Your task to perform on an android device: turn off javascript in the chrome app Image 0: 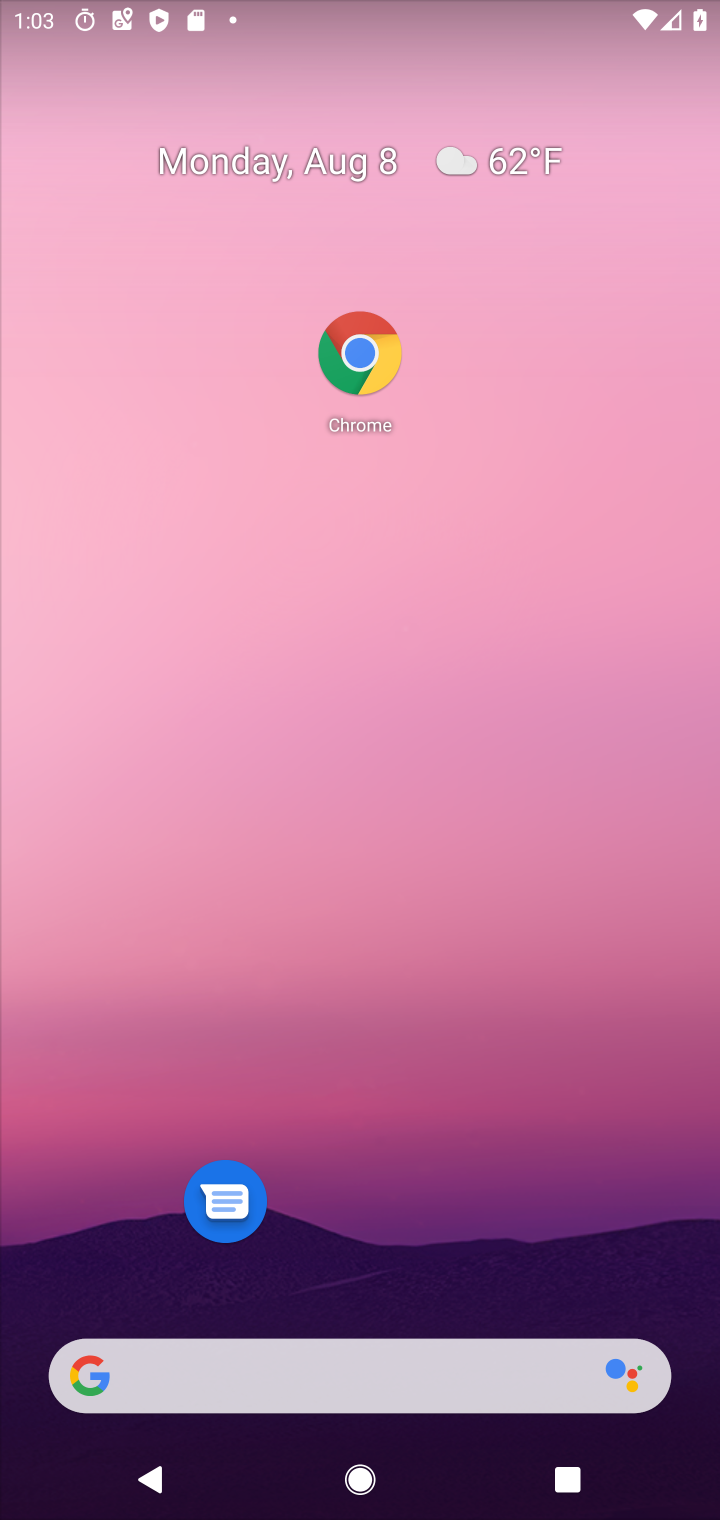
Step 0: press home button
Your task to perform on an android device: turn off javascript in the chrome app Image 1: 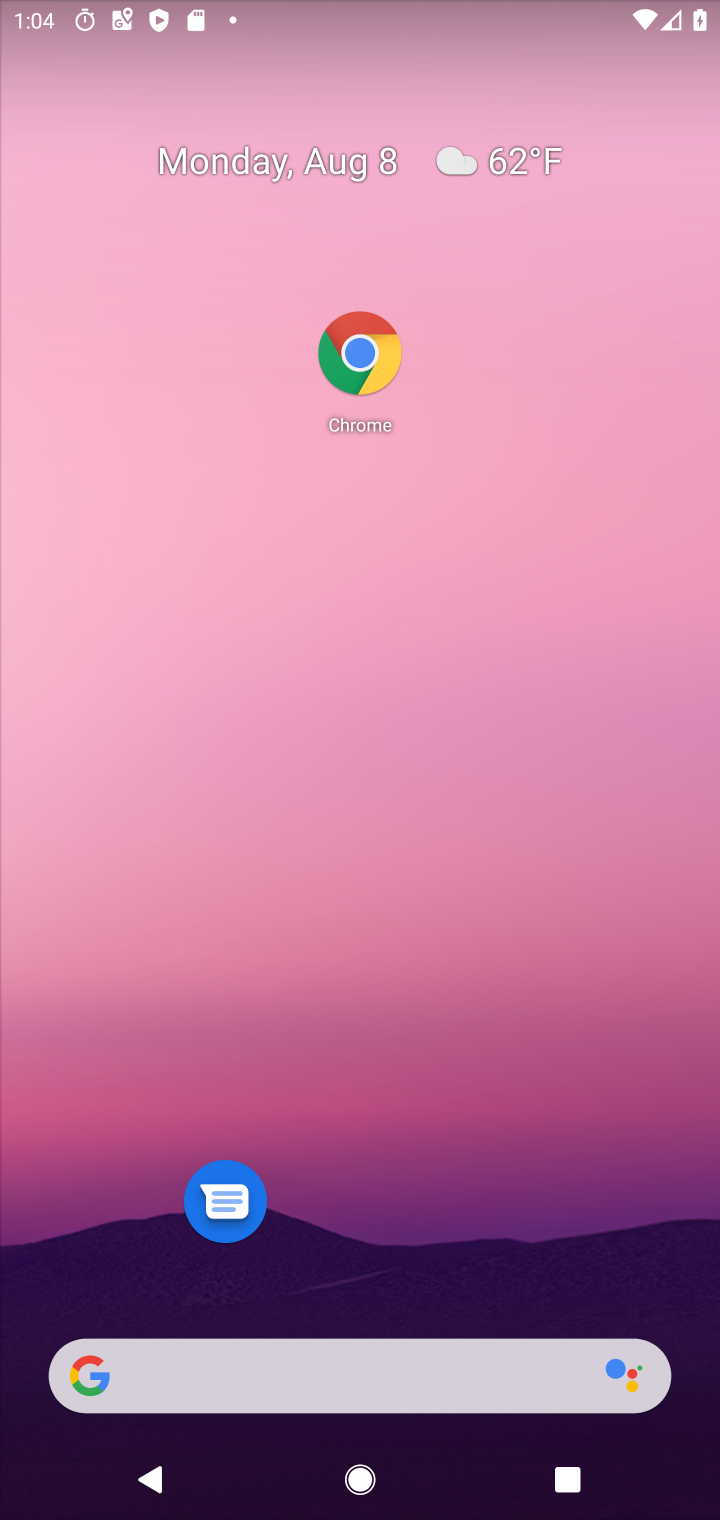
Step 1: click (368, 359)
Your task to perform on an android device: turn off javascript in the chrome app Image 2: 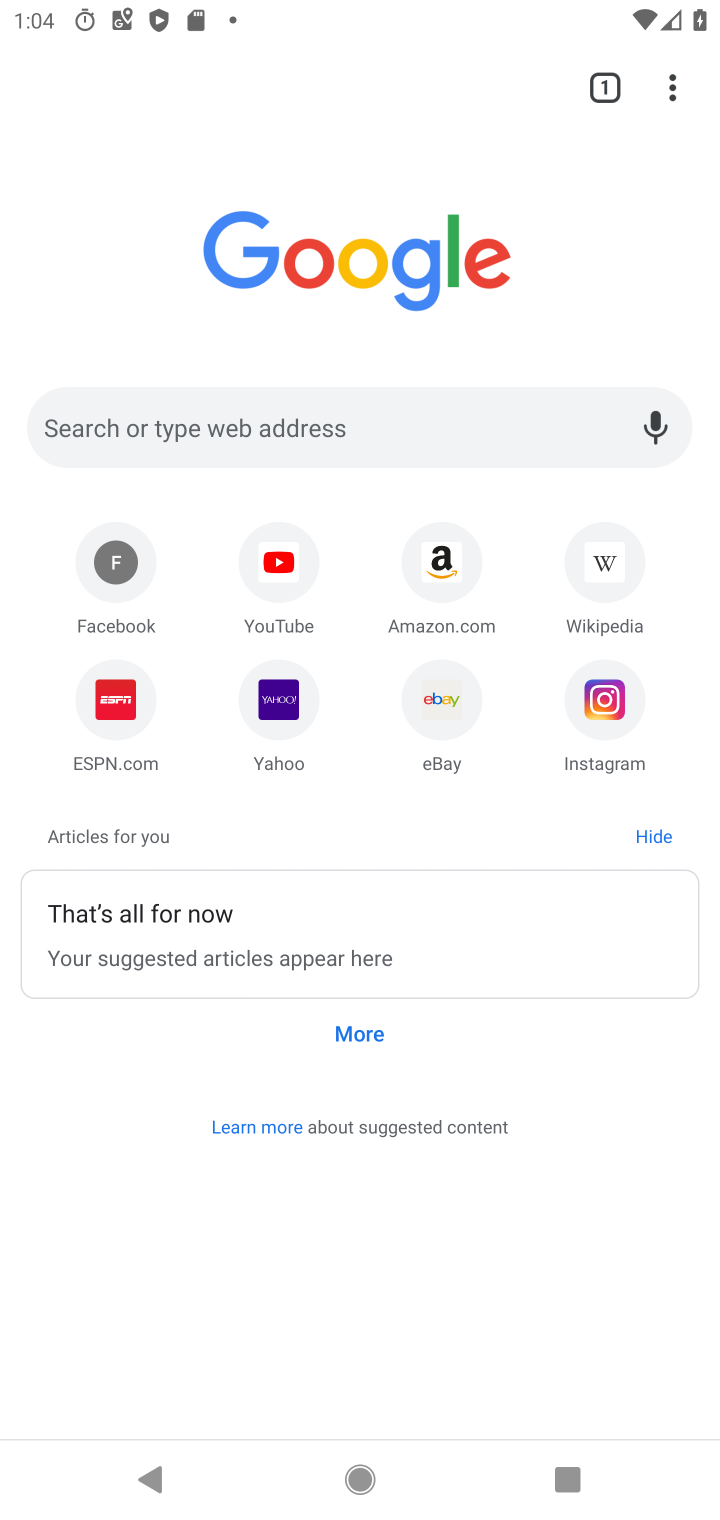
Step 2: click (660, 93)
Your task to perform on an android device: turn off javascript in the chrome app Image 3: 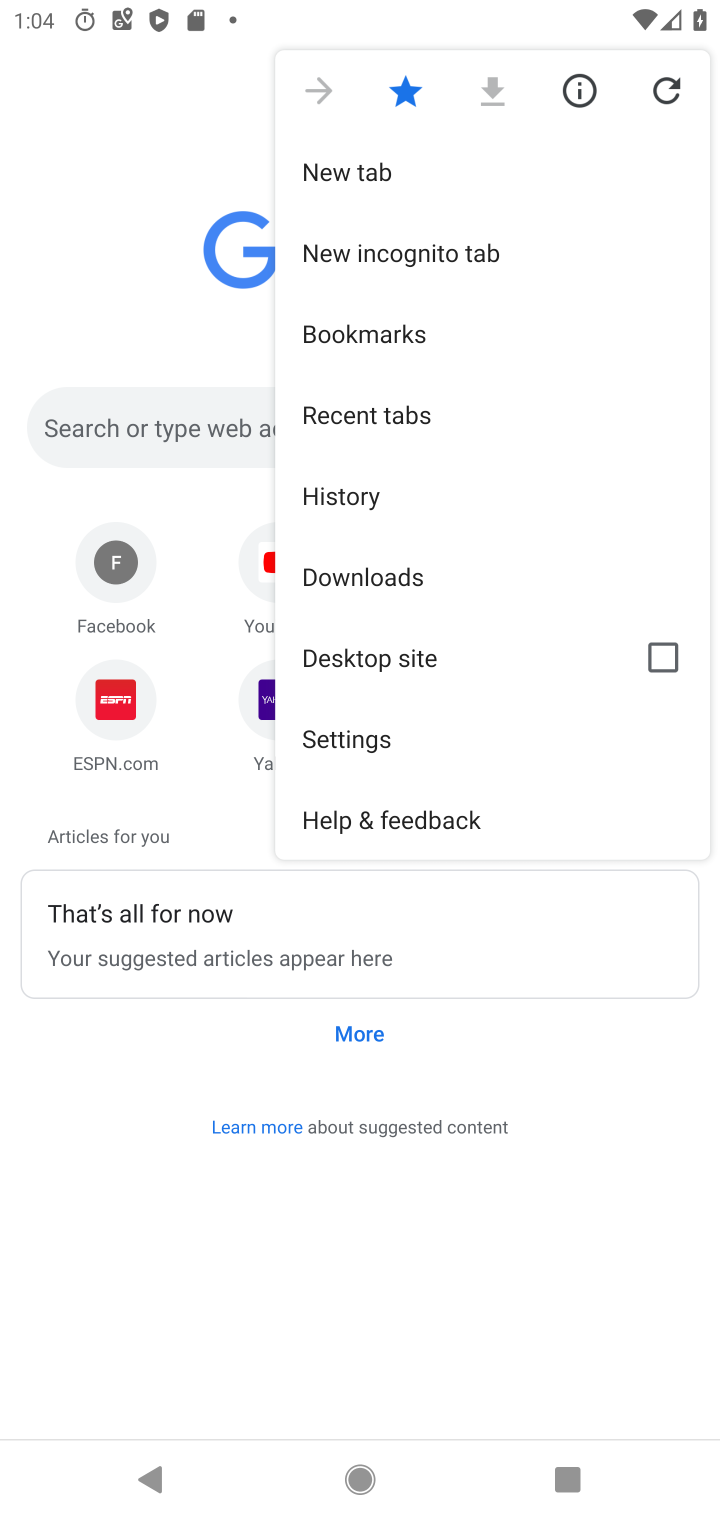
Step 3: click (360, 726)
Your task to perform on an android device: turn off javascript in the chrome app Image 4: 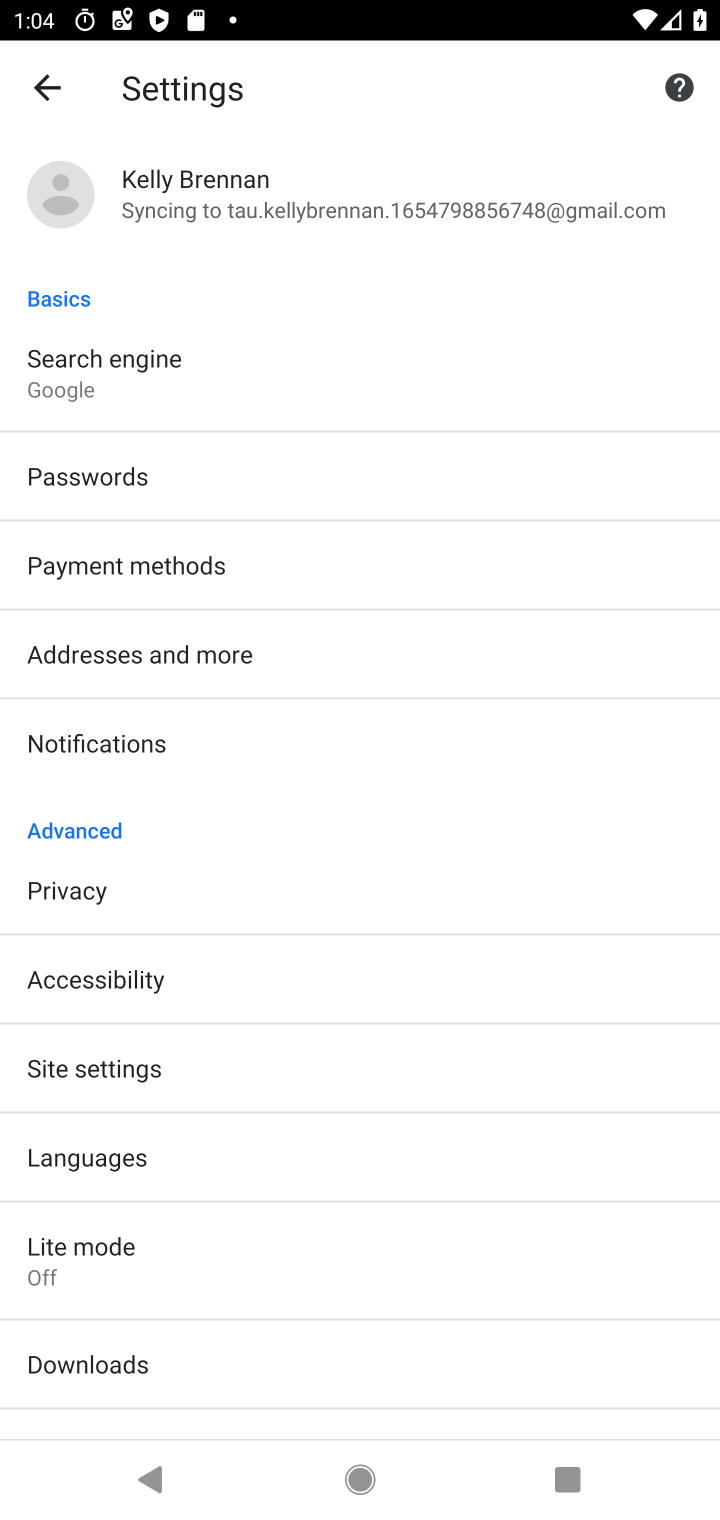
Step 4: click (131, 1067)
Your task to perform on an android device: turn off javascript in the chrome app Image 5: 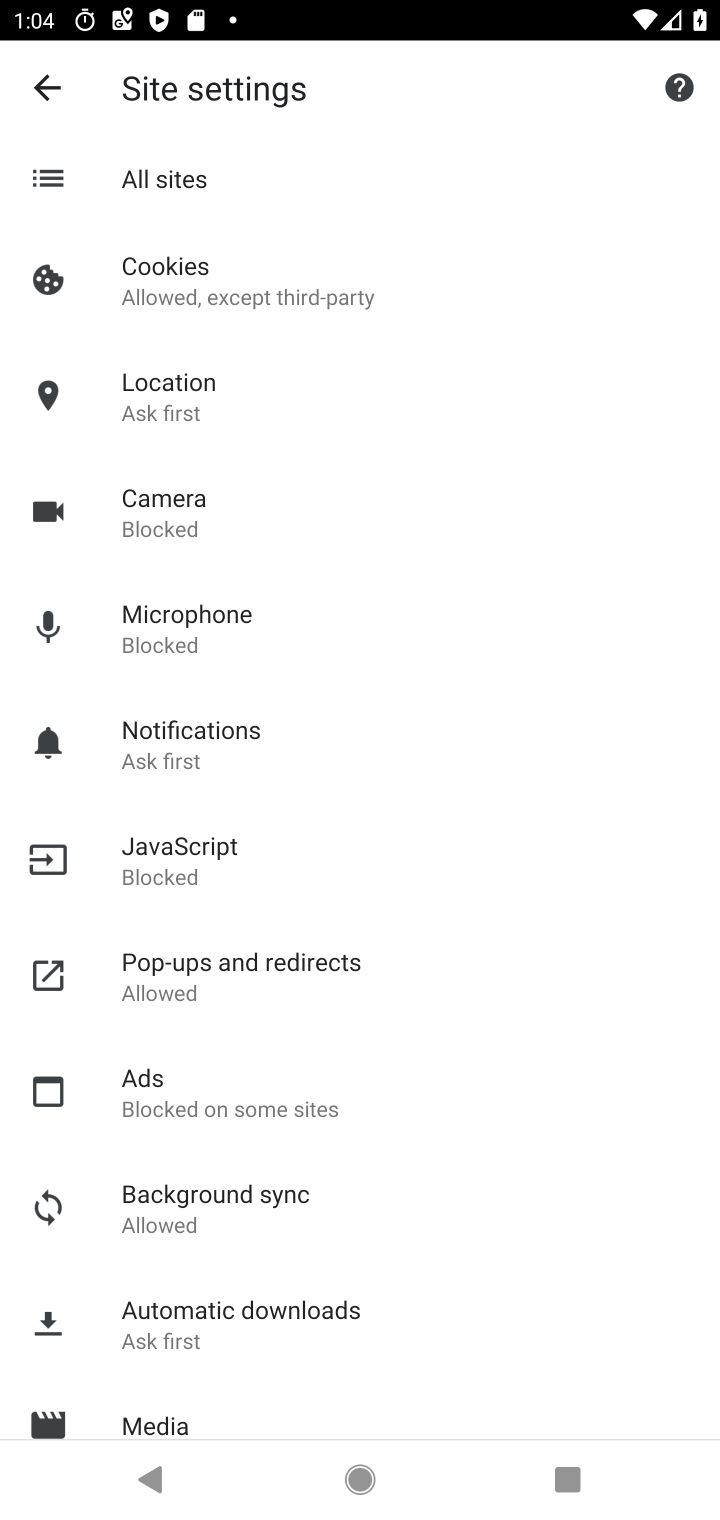
Step 5: click (174, 851)
Your task to perform on an android device: turn off javascript in the chrome app Image 6: 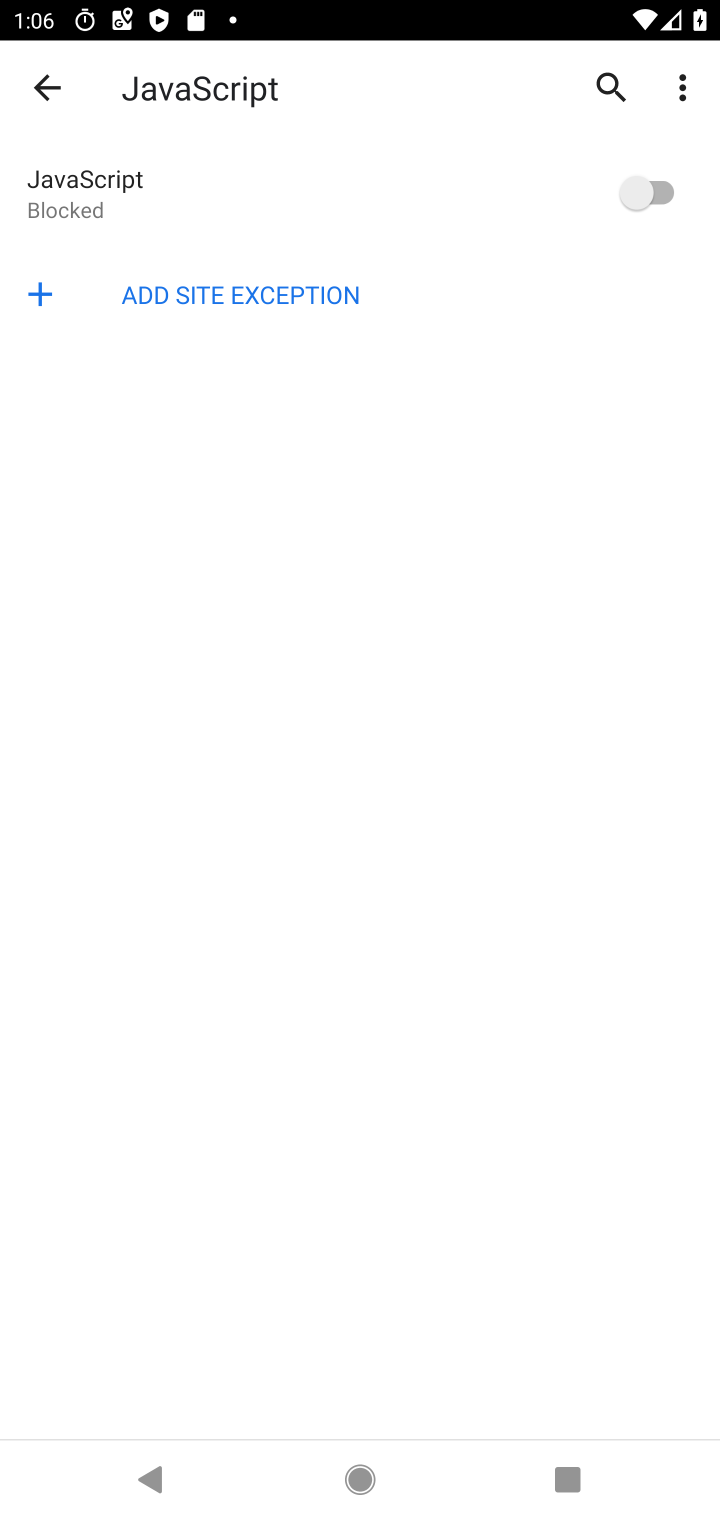
Step 6: task complete